Your task to perform on an android device: change notification settings in the gmail app Image 0: 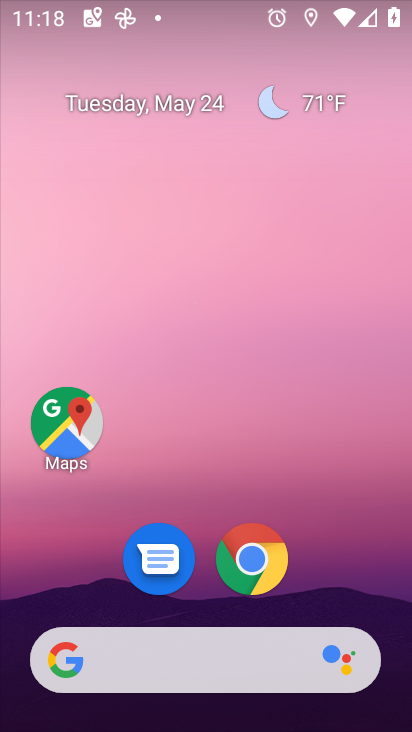
Step 0: drag from (379, 598) to (231, 101)
Your task to perform on an android device: change notification settings in the gmail app Image 1: 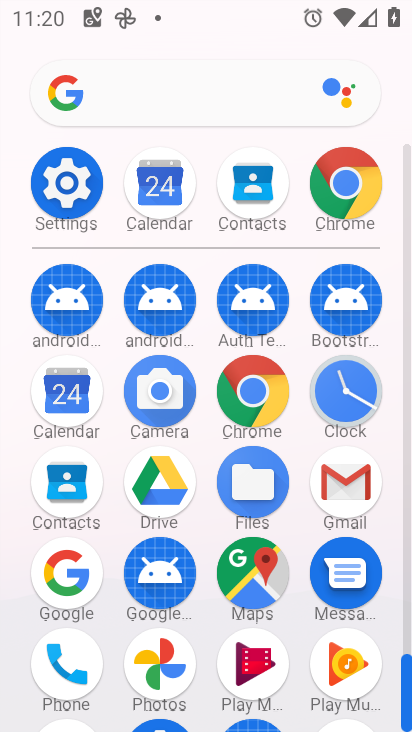
Step 1: click (340, 491)
Your task to perform on an android device: change notification settings in the gmail app Image 2: 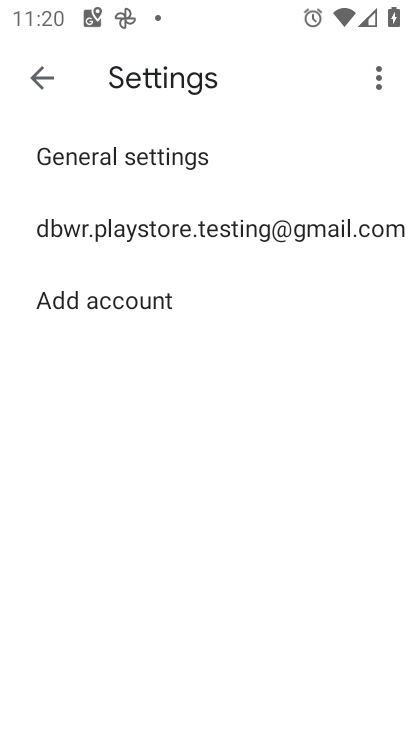
Step 2: click (228, 249)
Your task to perform on an android device: change notification settings in the gmail app Image 3: 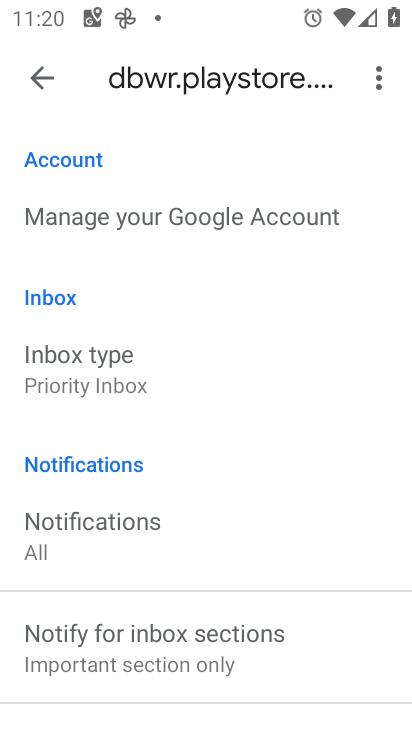
Step 3: click (92, 564)
Your task to perform on an android device: change notification settings in the gmail app Image 4: 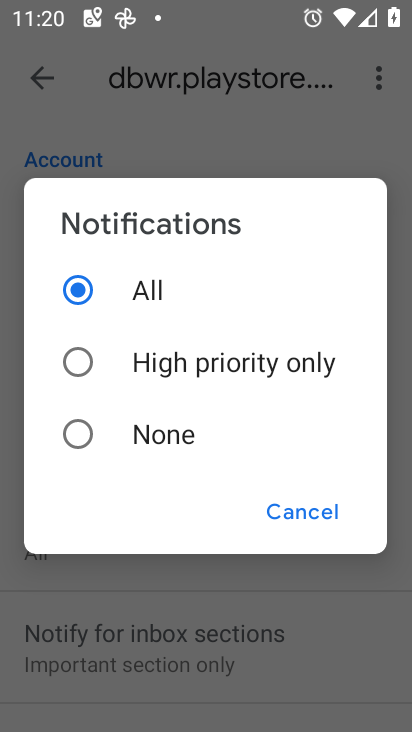
Step 4: click (72, 439)
Your task to perform on an android device: change notification settings in the gmail app Image 5: 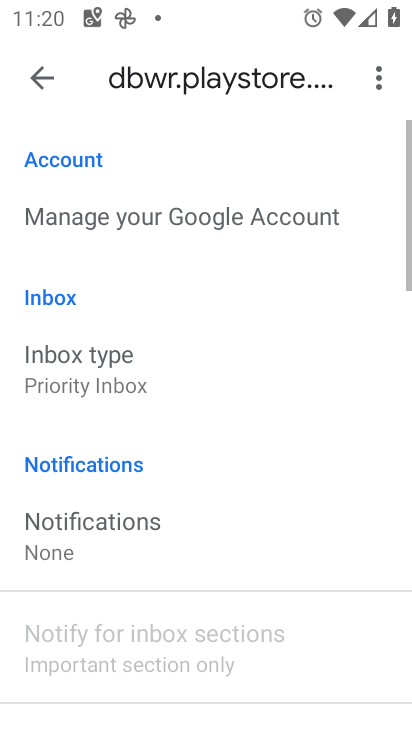
Step 5: task complete